Your task to perform on an android device: Open battery settings Image 0: 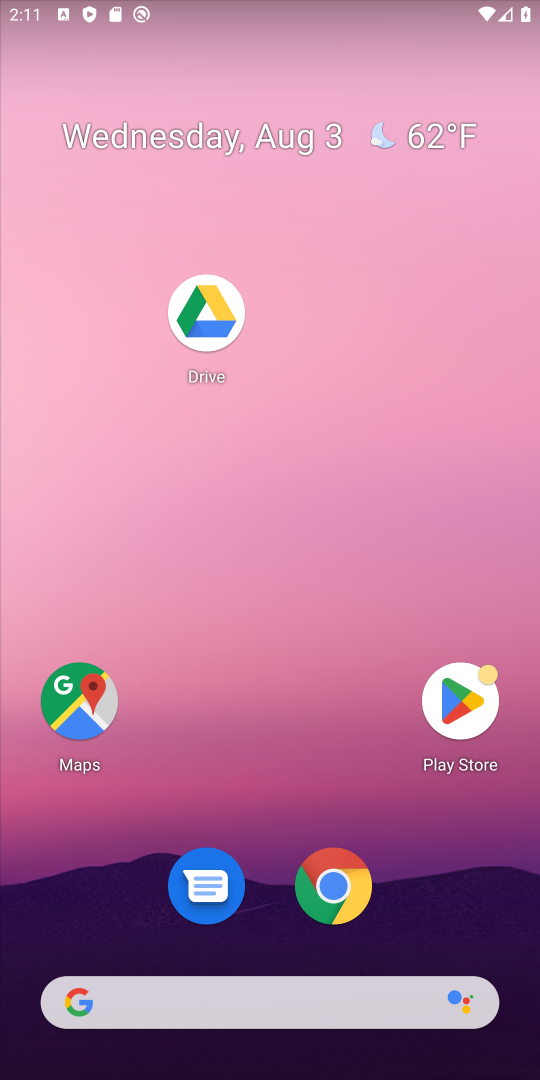
Step 0: drag from (402, 649) to (382, 12)
Your task to perform on an android device: Open battery settings Image 1: 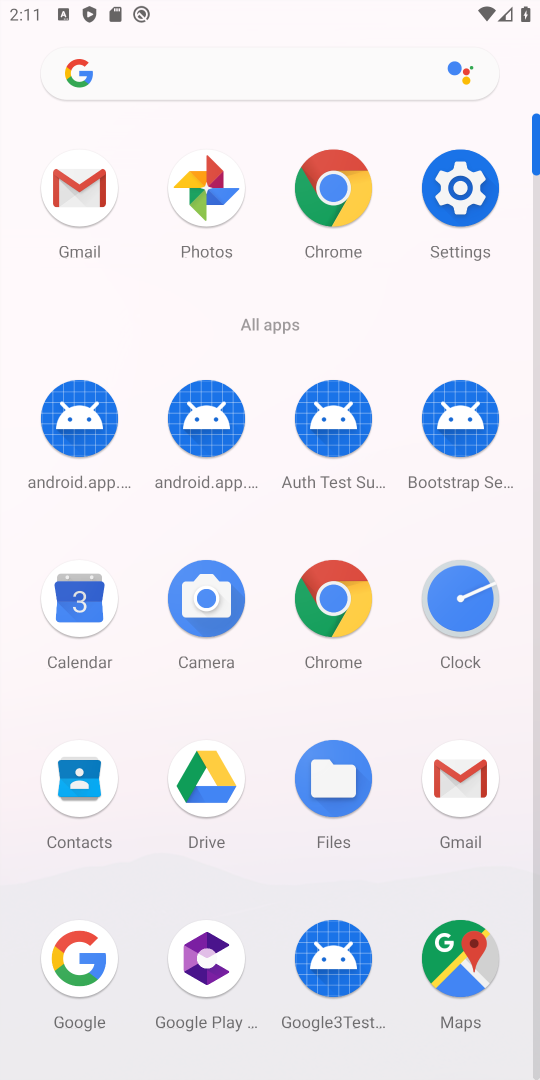
Step 1: click (479, 190)
Your task to perform on an android device: Open battery settings Image 2: 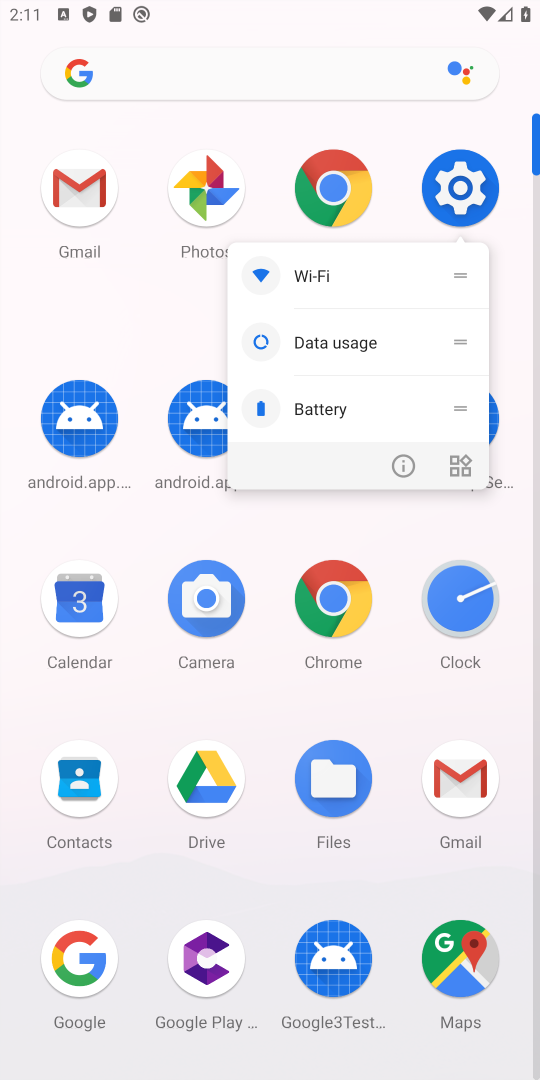
Step 2: click (479, 189)
Your task to perform on an android device: Open battery settings Image 3: 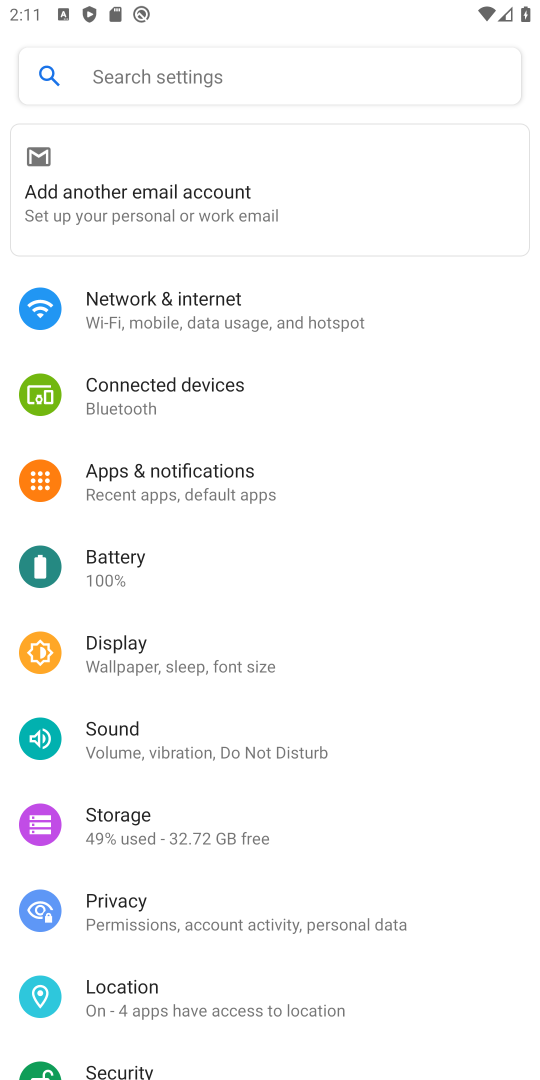
Step 3: click (141, 565)
Your task to perform on an android device: Open battery settings Image 4: 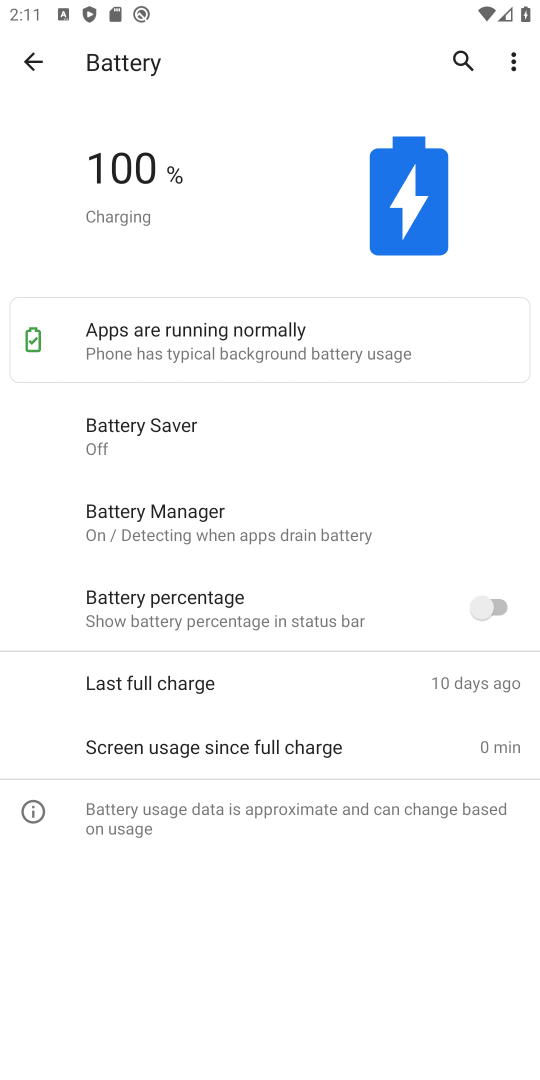
Step 4: task complete